Your task to perform on an android device: Open settings Image 0: 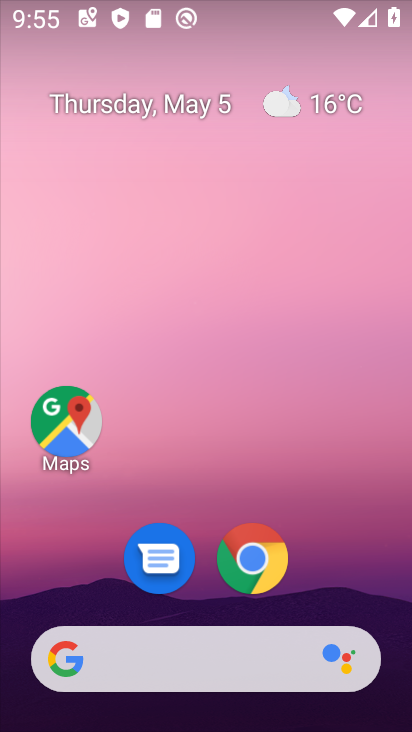
Step 0: drag from (382, 589) to (250, 35)
Your task to perform on an android device: Open settings Image 1: 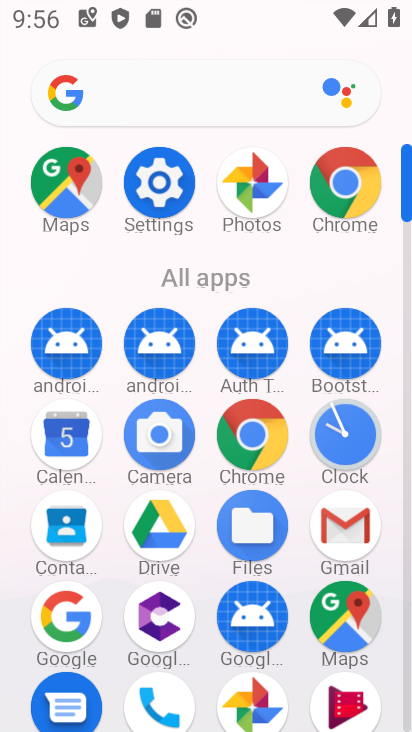
Step 1: click (163, 171)
Your task to perform on an android device: Open settings Image 2: 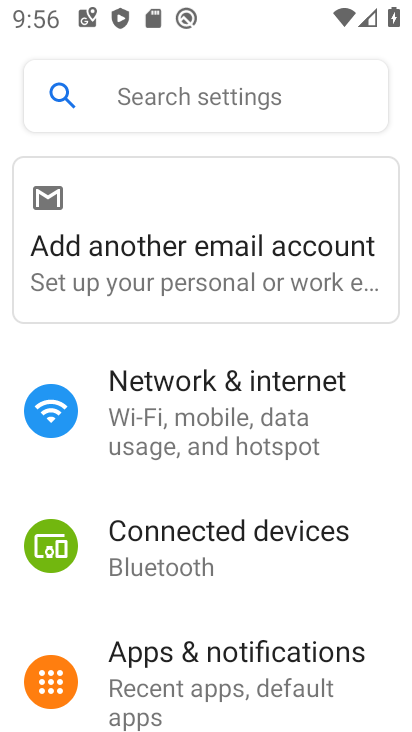
Step 2: task complete